Your task to perform on an android device: Add macbook pro 15 inch to the cart on bestbuy Image 0: 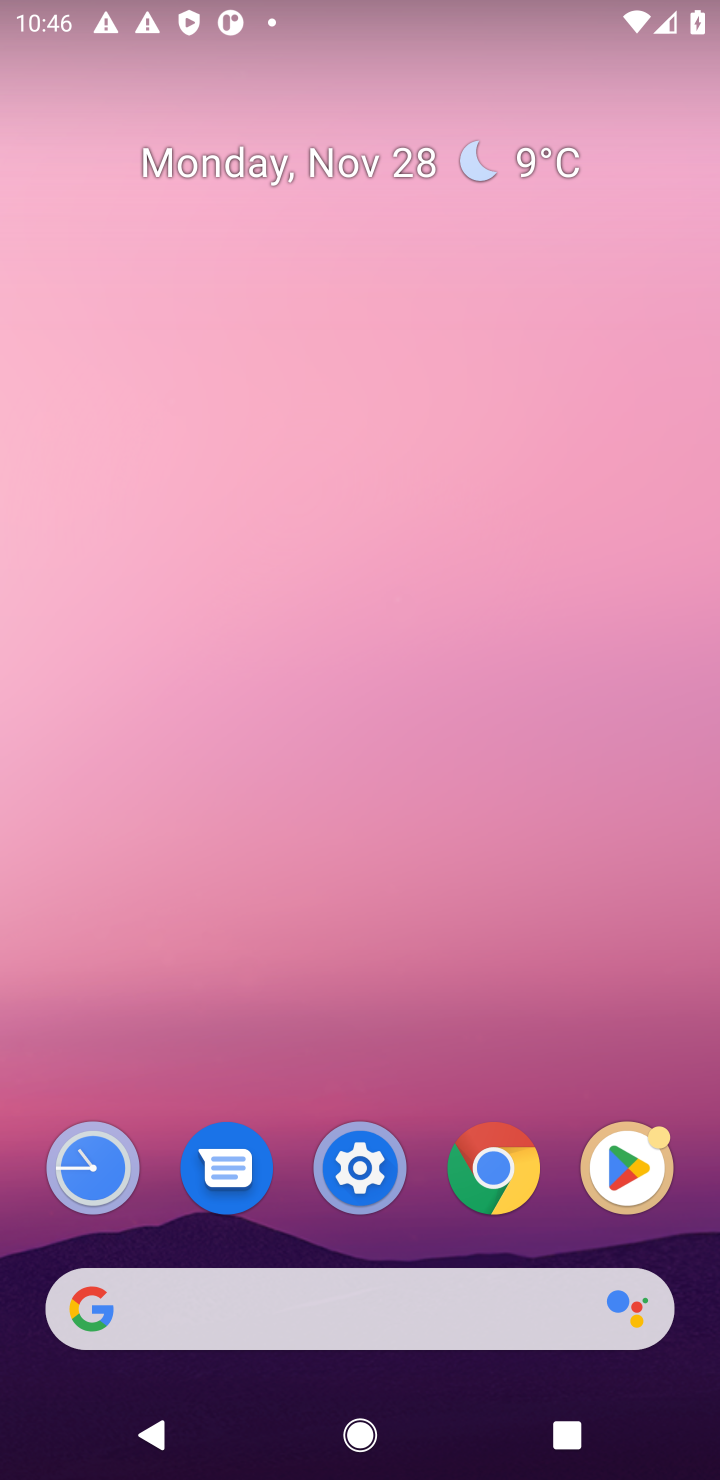
Step 0: click (231, 1306)
Your task to perform on an android device: Add macbook pro 15 inch to the cart on bestbuy Image 1: 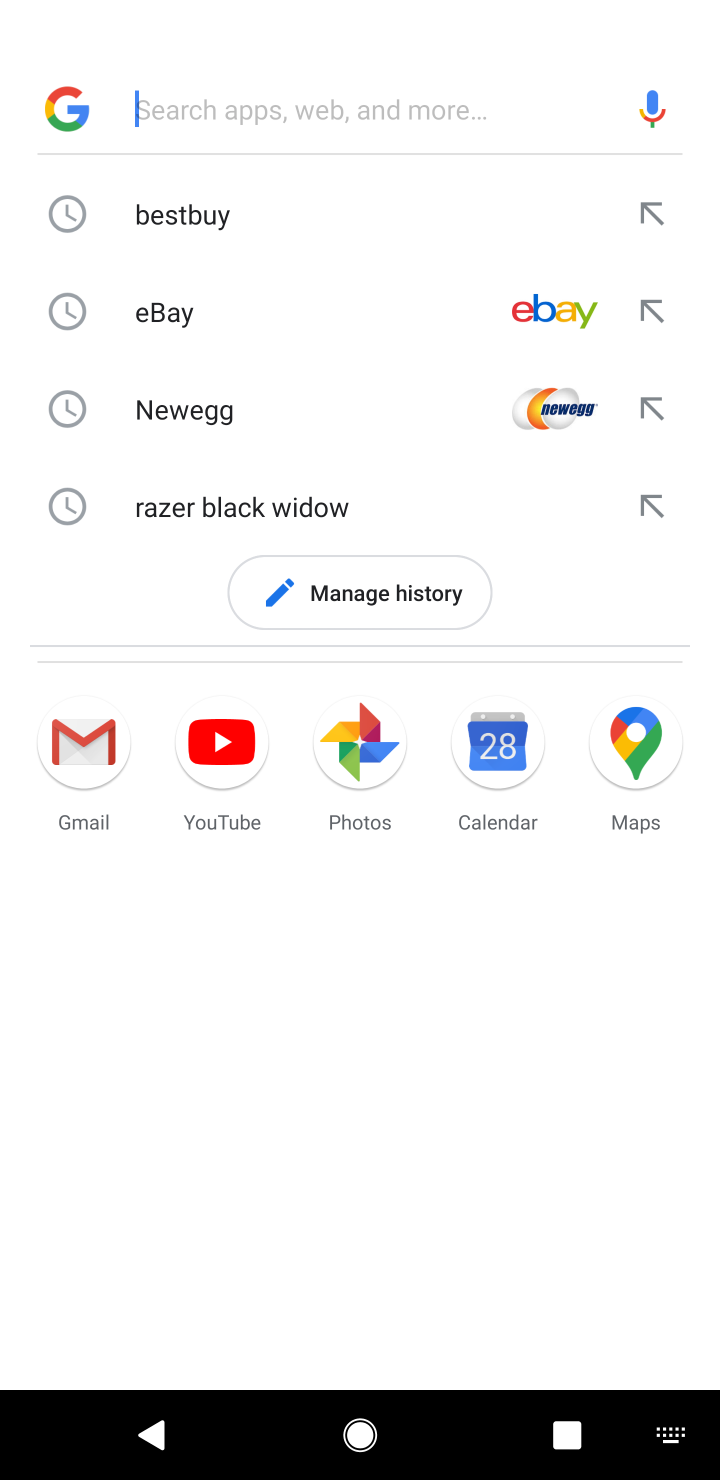
Step 1: type "best"
Your task to perform on an android device: Add macbook pro 15 inch to the cart on bestbuy Image 2: 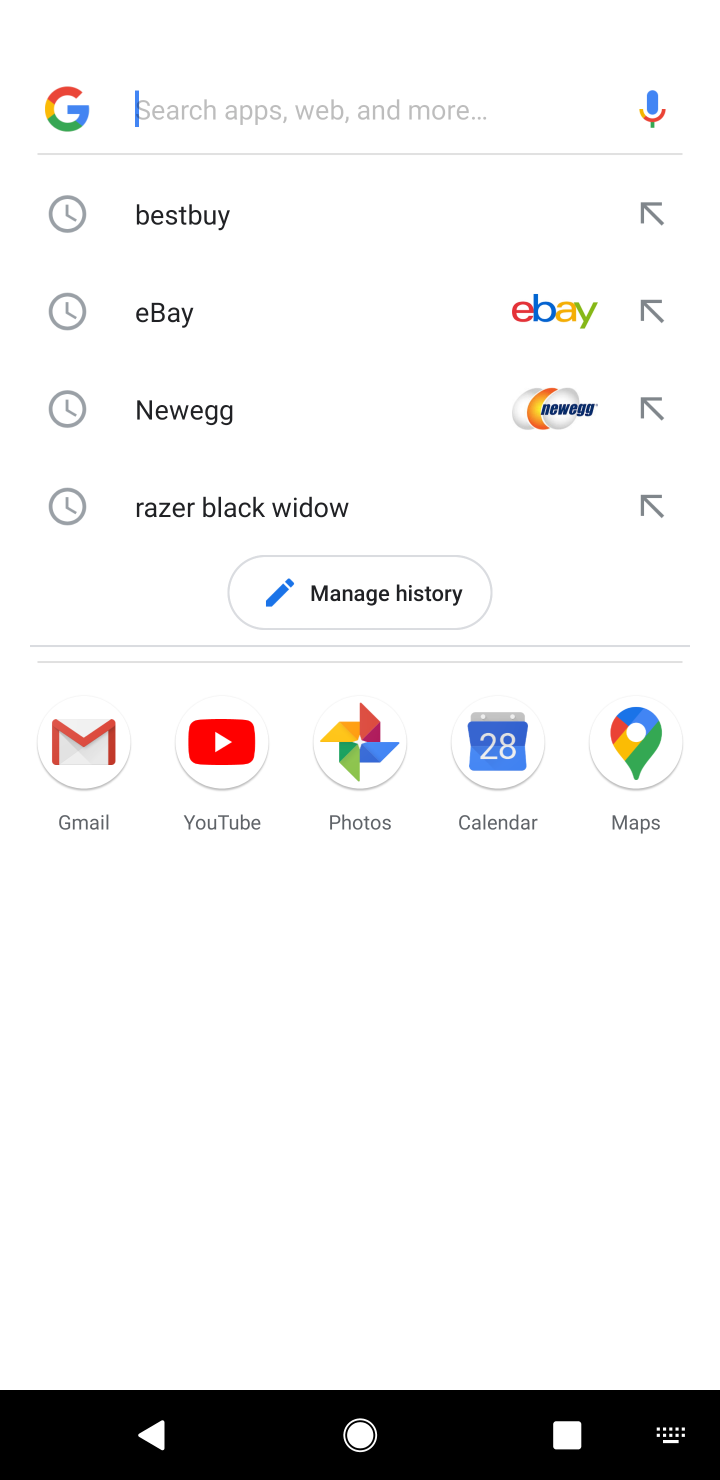
Step 2: click (253, 191)
Your task to perform on an android device: Add macbook pro 15 inch to the cart on bestbuy Image 3: 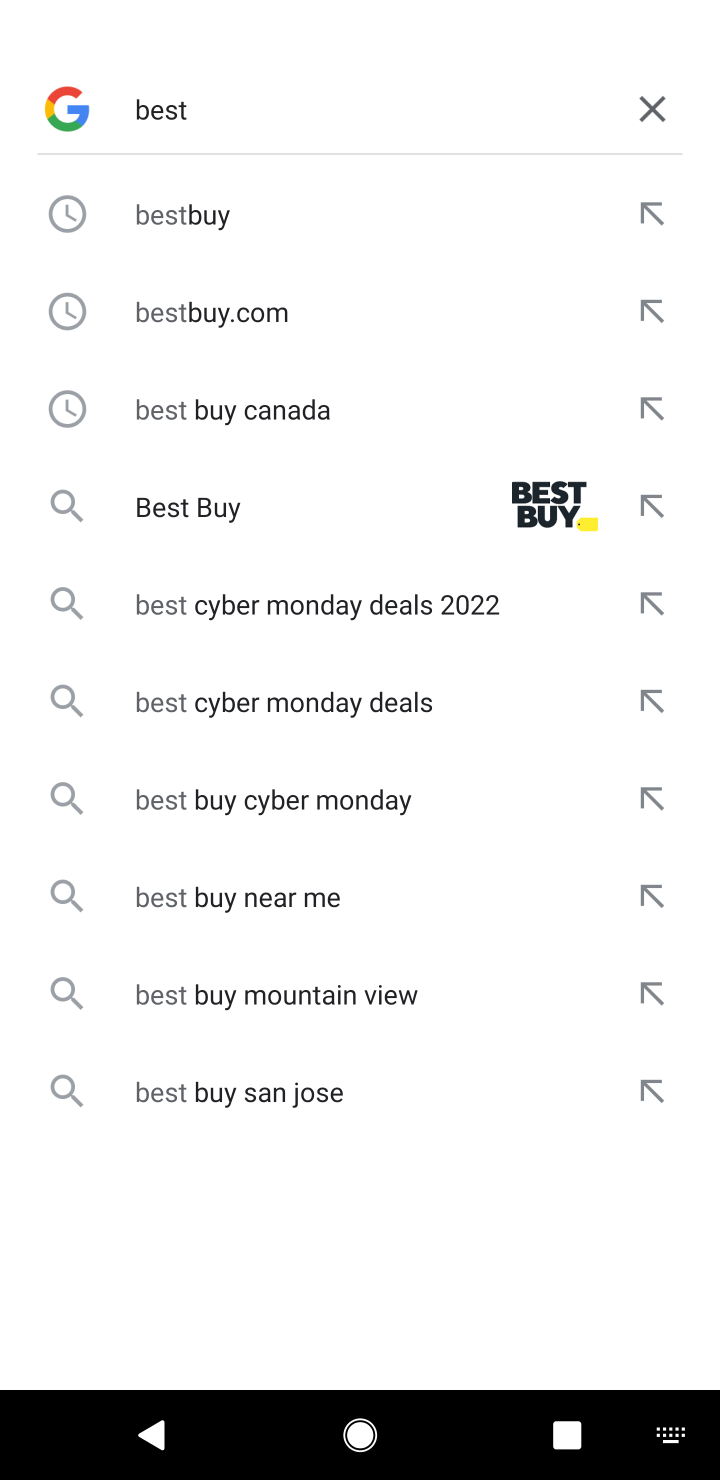
Step 3: task complete